Your task to perform on an android device: Open CNN.com Image 0: 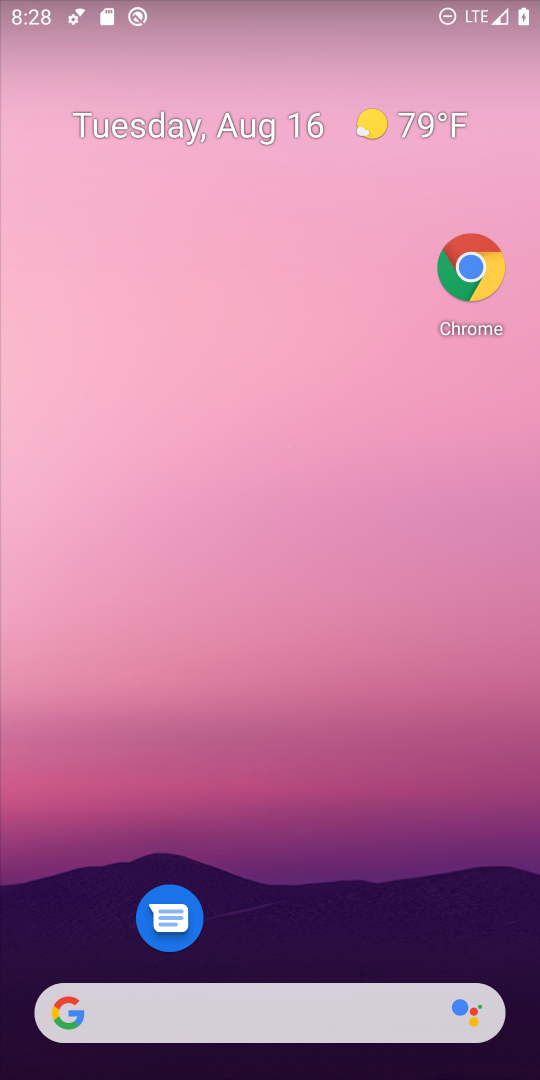
Step 0: drag from (330, 919) to (345, 313)
Your task to perform on an android device: Open CNN.com Image 1: 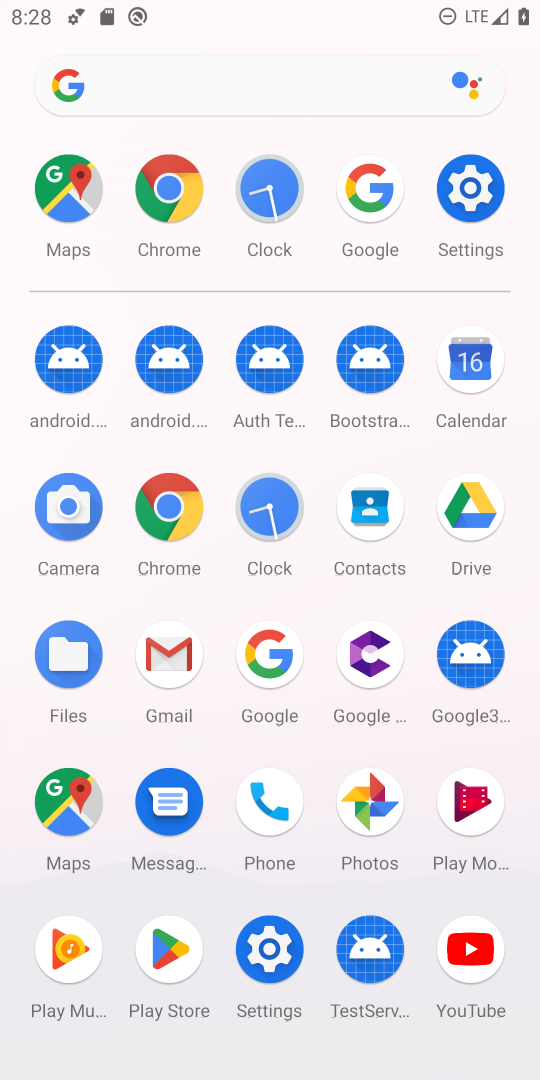
Step 1: click (195, 196)
Your task to perform on an android device: Open CNN.com Image 2: 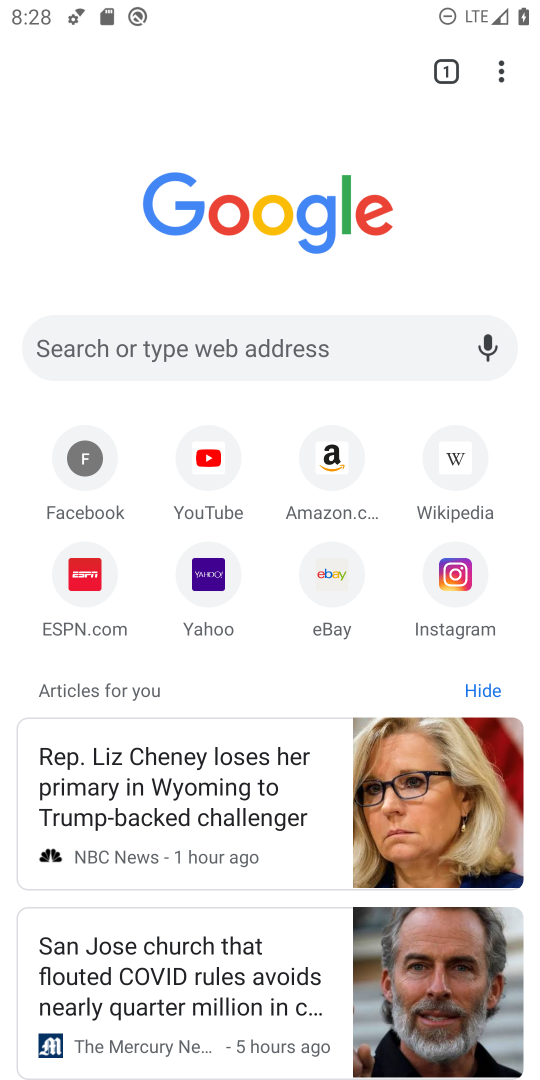
Step 2: click (212, 356)
Your task to perform on an android device: Open CNN.com Image 3: 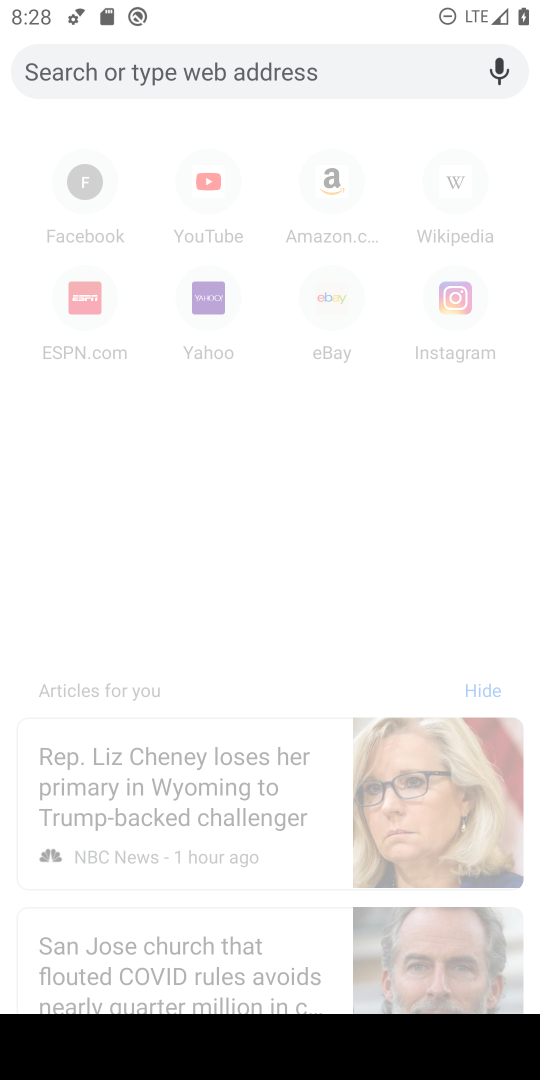
Step 3: type "cnn"
Your task to perform on an android device: Open CNN.com Image 4: 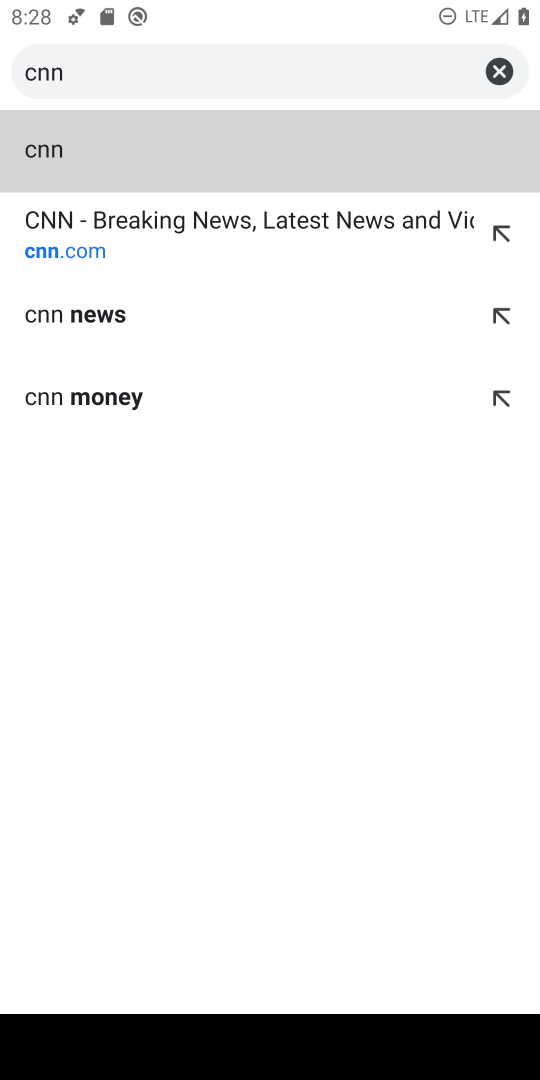
Step 4: click (221, 244)
Your task to perform on an android device: Open CNN.com Image 5: 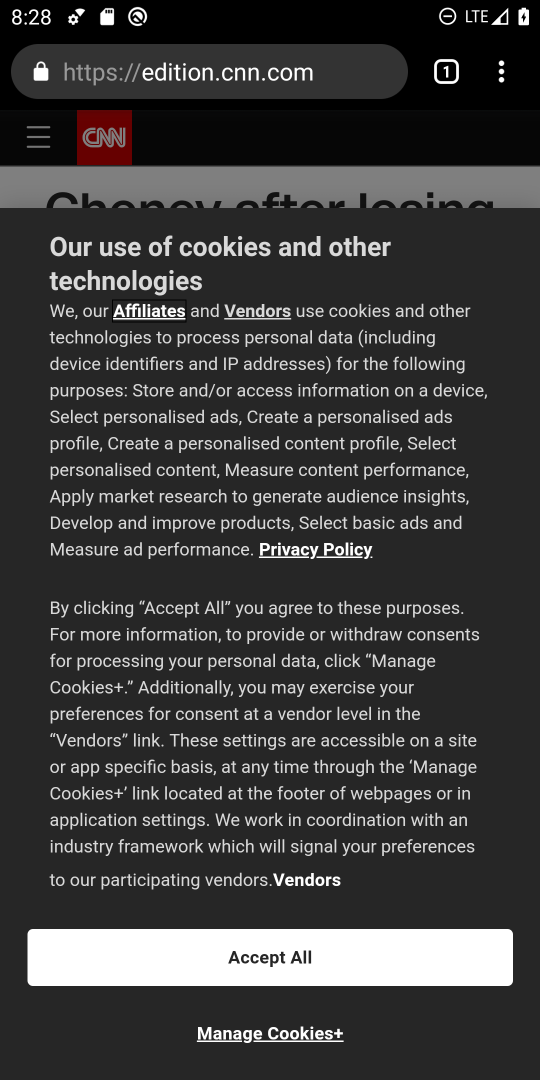
Step 5: task complete